Your task to perform on an android device: delete a single message in the gmail app Image 0: 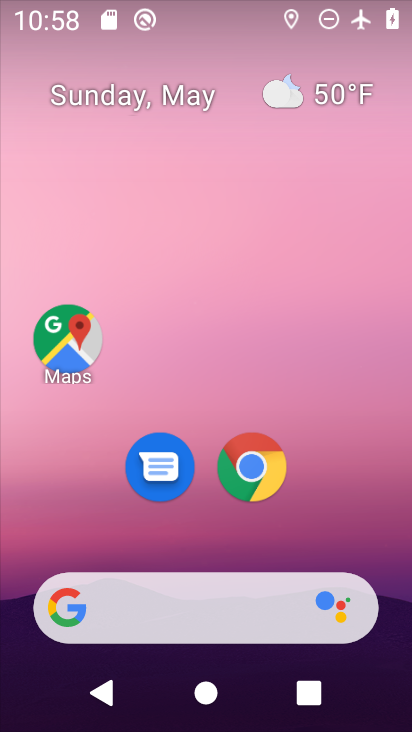
Step 0: drag from (215, 551) to (216, 189)
Your task to perform on an android device: delete a single message in the gmail app Image 1: 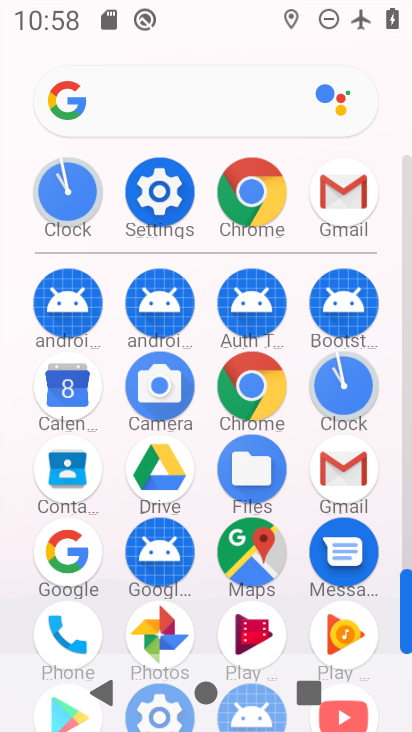
Step 1: click (315, 193)
Your task to perform on an android device: delete a single message in the gmail app Image 2: 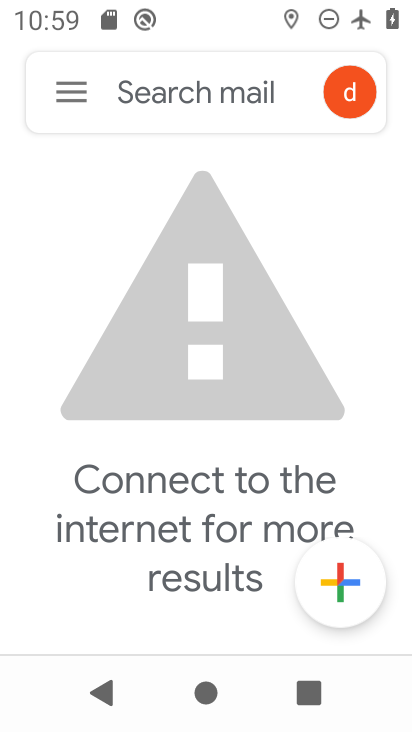
Step 2: click (79, 101)
Your task to perform on an android device: delete a single message in the gmail app Image 3: 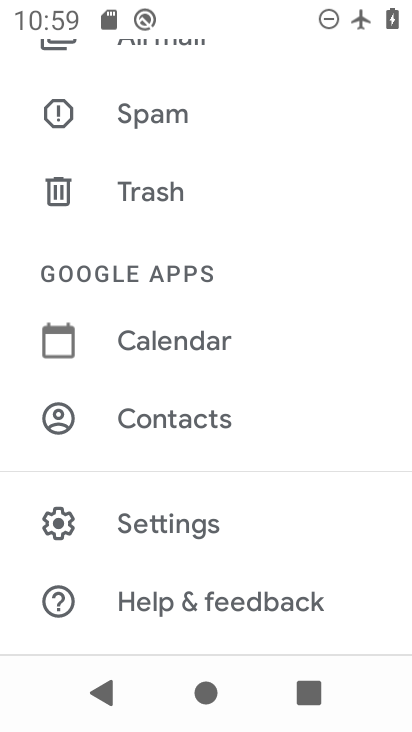
Step 3: drag from (201, 236) to (204, 574)
Your task to perform on an android device: delete a single message in the gmail app Image 4: 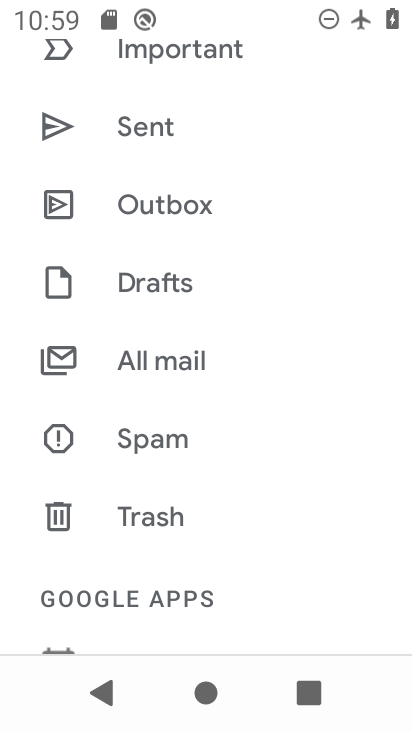
Step 4: click (204, 365)
Your task to perform on an android device: delete a single message in the gmail app Image 5: 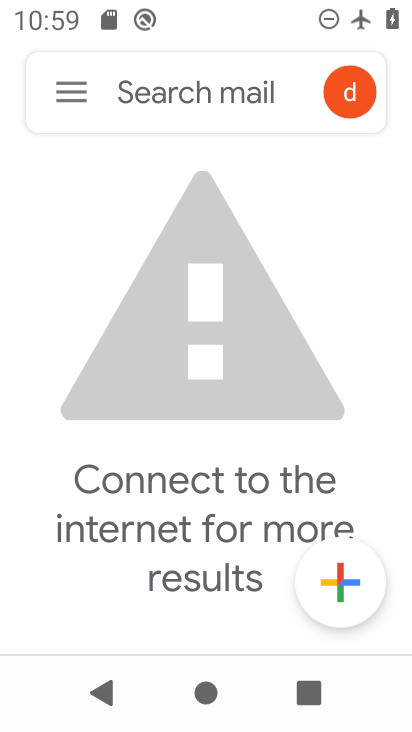
Step 5: task complete